Your task to perform on an android device: add a contact Image 0: 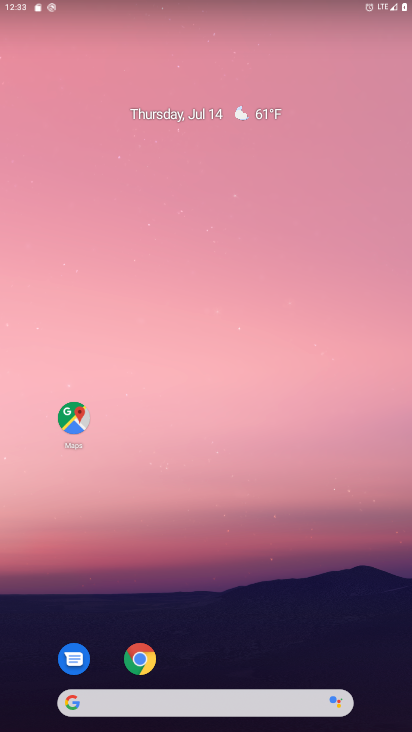
Step 0: press home button
Your task to perform on an android device: add a contact Image 1: 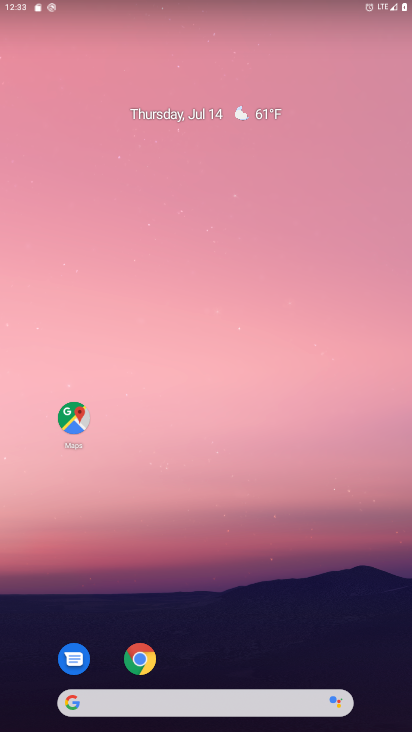
Step 1: drag from (206, 653) to (230, 6)
Your task to perform on an android device: add a contact Image 2: 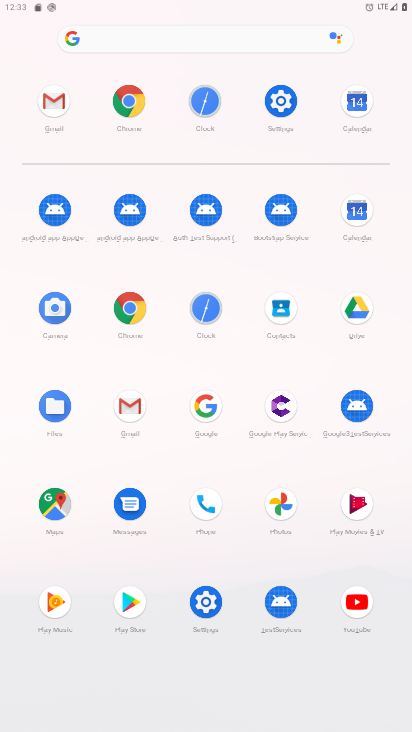
Step 2: click (280, 304)
Your task to perform on an android device: add a contact Image 3: 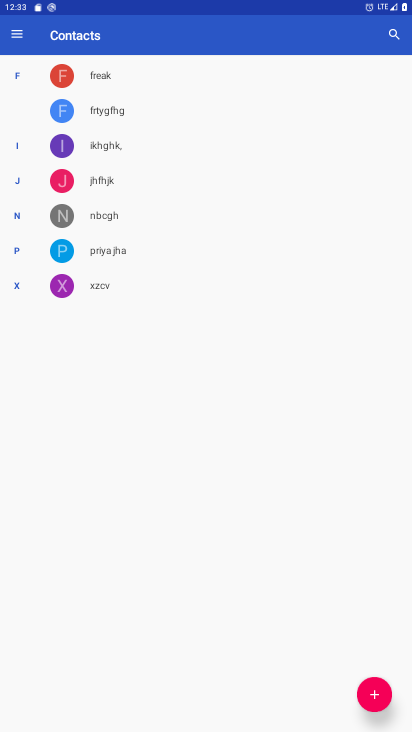
Step 3: click (377, 690)
Your task to perform on an android device: add a contact Image 4: 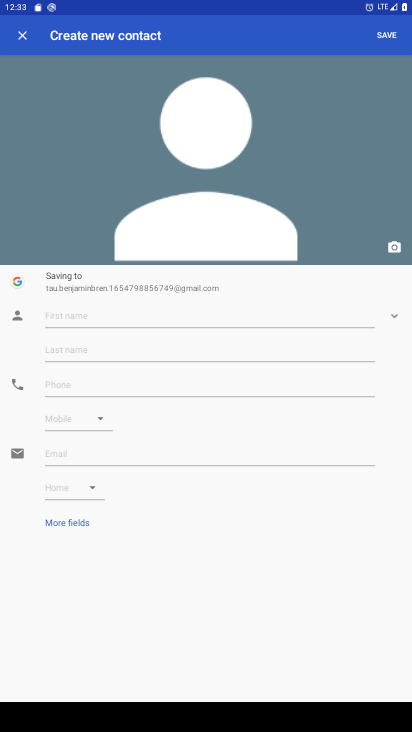
Step 4: click (92, 313)
Your task to perform on an android device: add a contact Image 5: 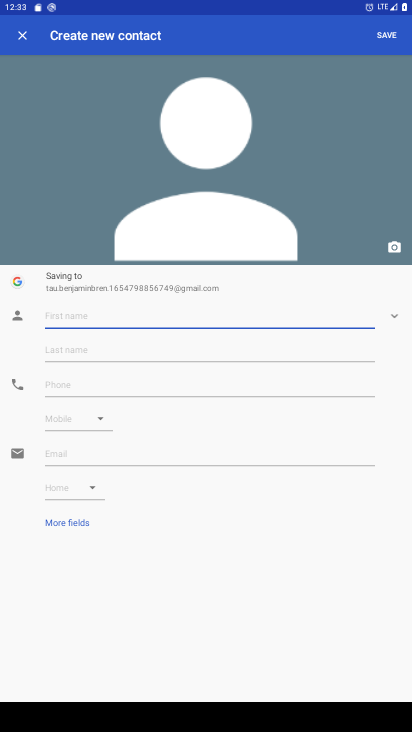
Step 5: type "gghgh"
Your task to perform on an android device: add a contact Image 6: 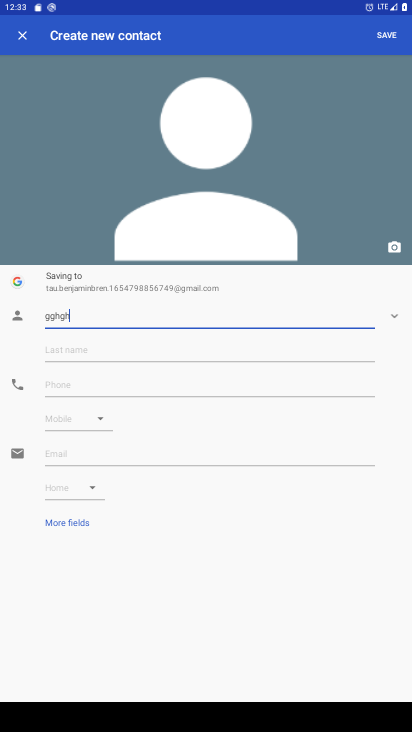
Step 6: type ""
Your task to perform on an android device: add a contact Image 7: 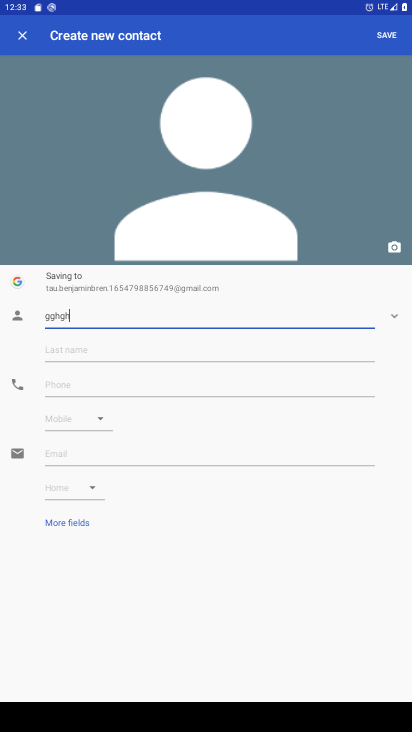
Step 7: click (391, 33)
Your task to perform on an android device: add a contact Image 8: 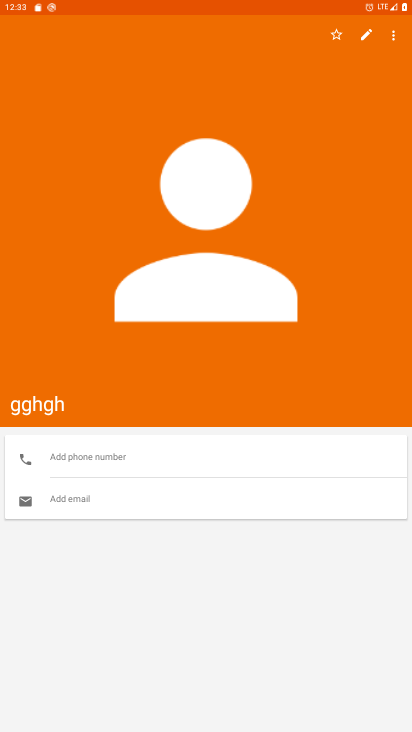
Step 8: task complete